Your task to perform on an android device: Go to Amazon Image 0: 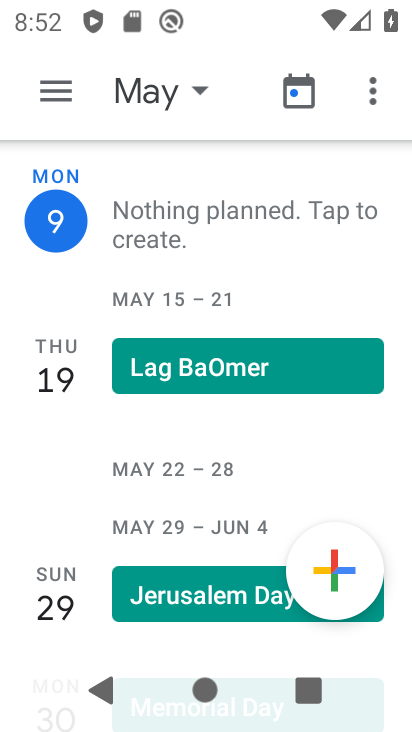
Step 0: press home button
Your task to perform on an android device: Go to Amazon Image 1: 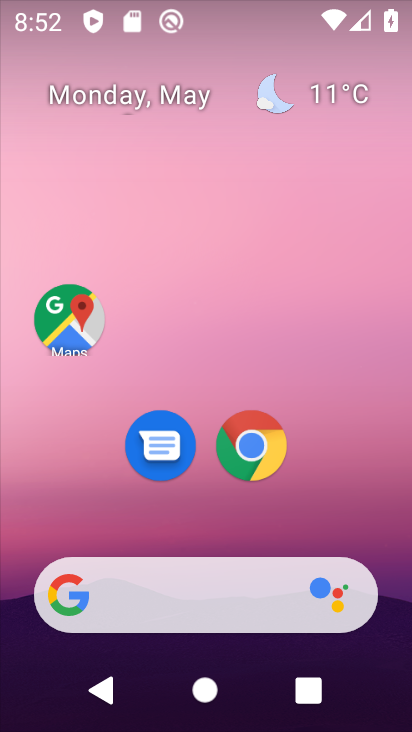
Step 1: drag from (263, 638) to (262, 170)
Your task to perform on an android device: Go to Amazon Image 2: 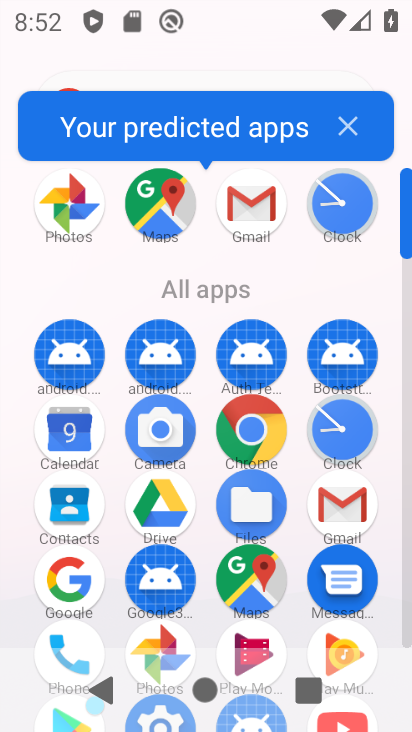
Step 2: drag from (193, 525) to (223, 309)
Your task to perform on an android device: Go to Amazon Image 3: 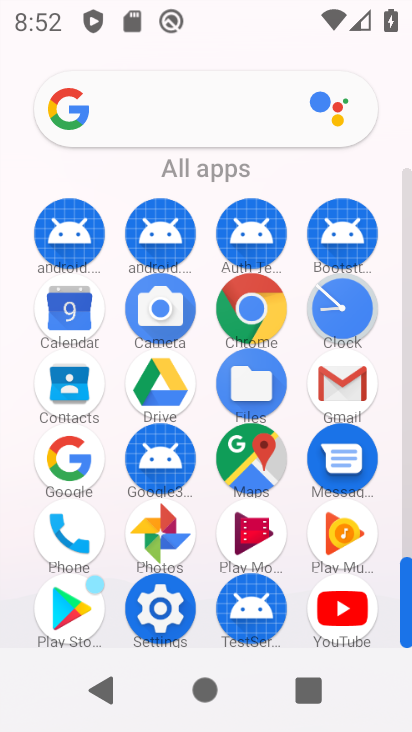
Step 3: click (242, 308)
Your task to perform on an android device: Go to Amazon Image 4: 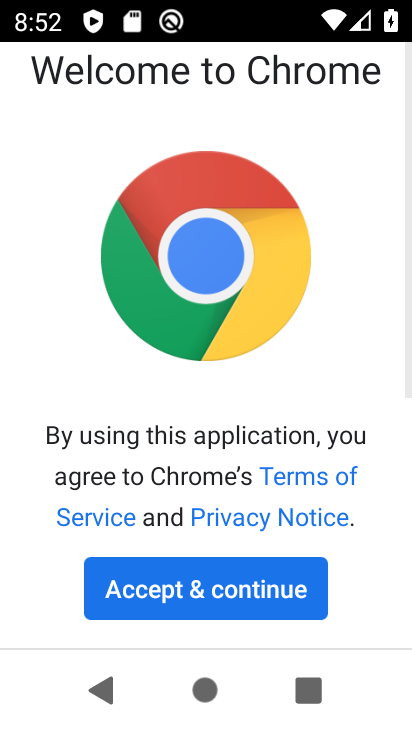
Step 4: click (218, 591)
Your task to perform on an android device: Go to Amazon Image 5: 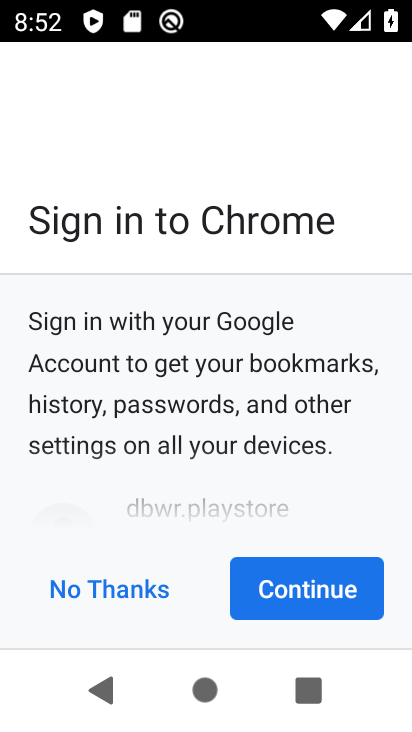
Step 5: click (329, 578)
Your task to perform on an android device: Go to Amazon Image 6: 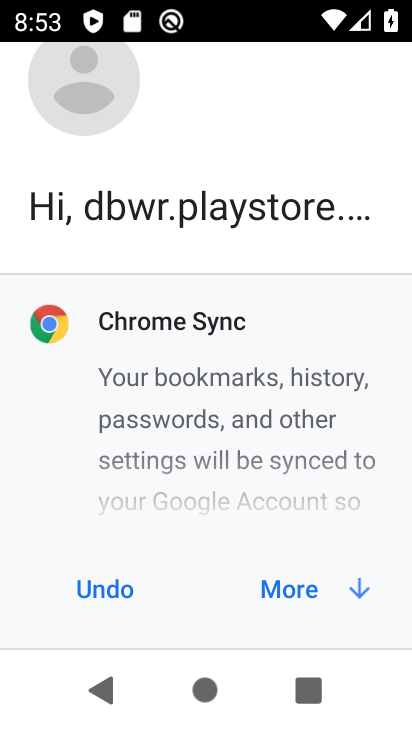
Step 6: click (352, 587)
Your task to perform on an android device: Go to Amazon Image 7: 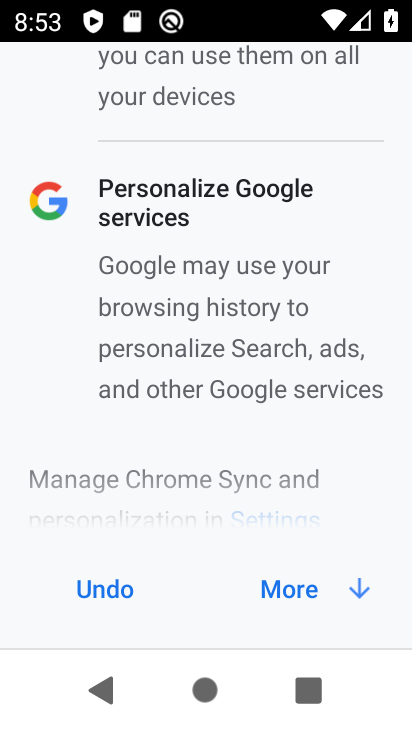
Step 7: click (347, 594)
Your task to perform on an android device: Go to Amazon Image 8: 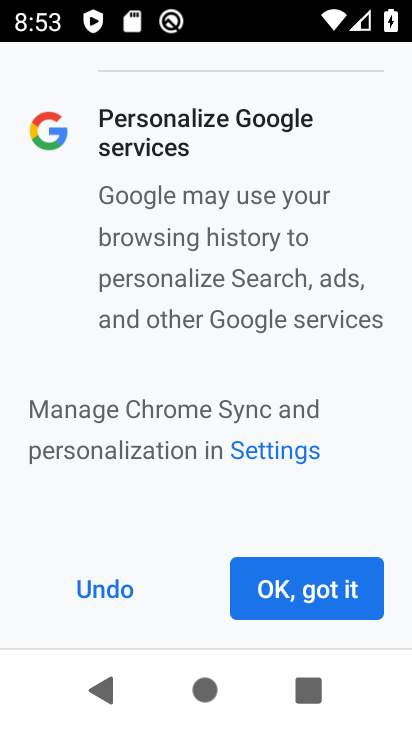
Step 8: click (345, 592)
Your task to perform on an android device: Go to Amazon Image 9: 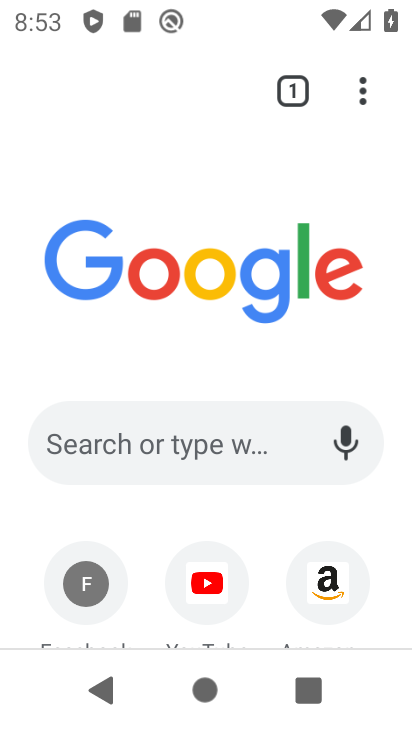
Step 9: click (327, 585)
Your task to perform on an android device: Go to Amazon Image 10: 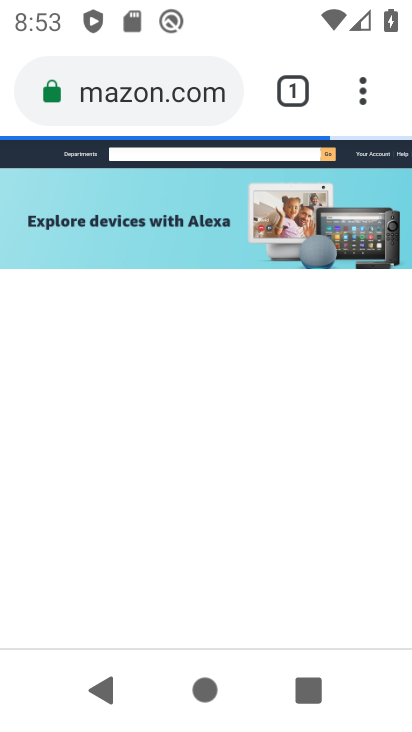
Step 10: task complete